Your task to perform on an android device: visit the assistant section in the google photos Image 0: 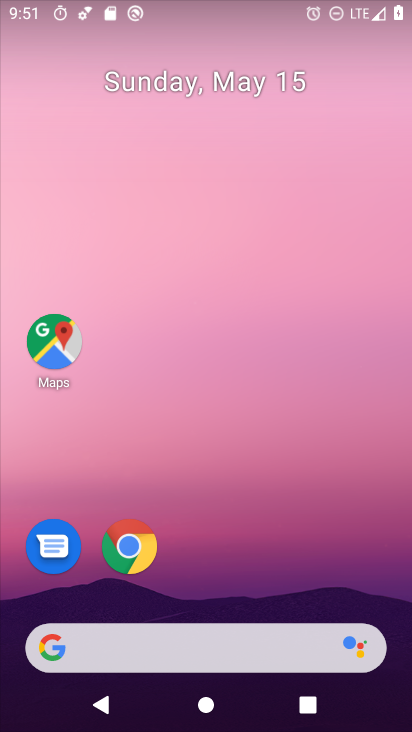
Step 0: drag from (274, 503) to (246, 52)
Your task to perform on an android device: visit the assistant section in the google photos Image 1: 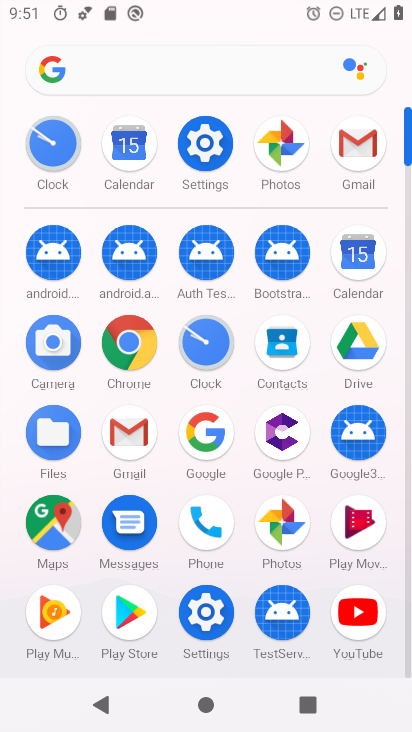
Step 1: click (284, 144)
Your task to perform on an android device: visit the assistant section in the google photos Image 2: 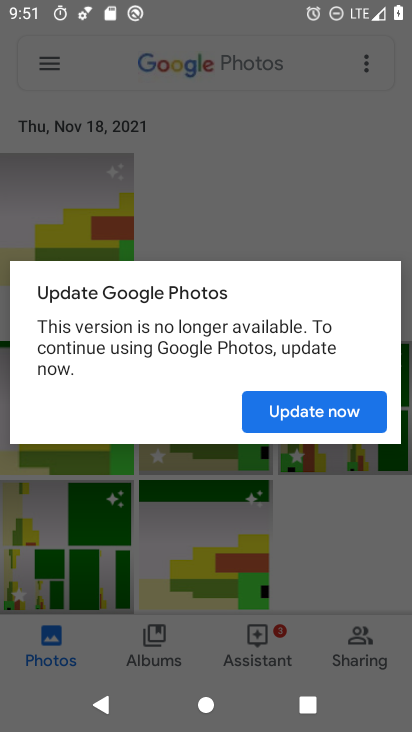
Step 2: click (258, 638)
Your task to perform on an android device: visit the assistant section in the google photos Image 3: 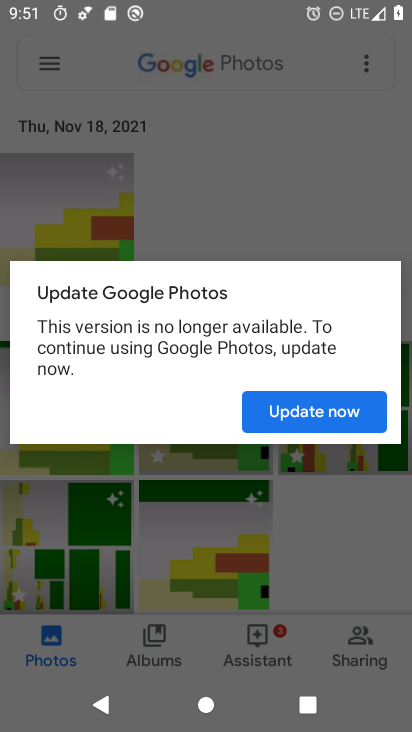
Step 3: click (322, 412)
Your task to perform on an android device: visit the assistant section in the google photos Image 4: 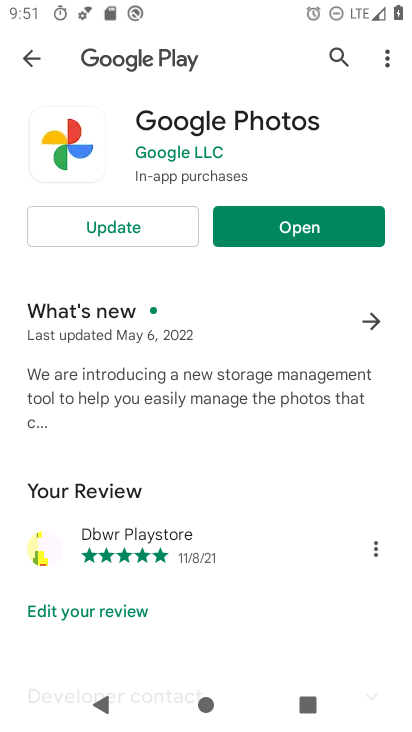
Step 4: click (313, 224)
Your task to perform on an android device: visit the assistant section in the google photos Image 5: 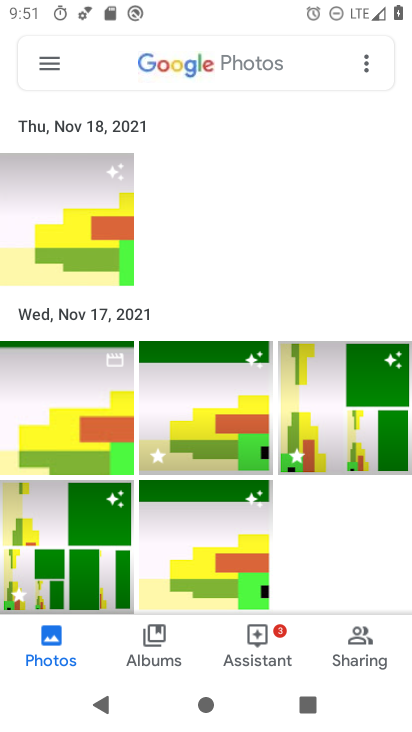
Step 5: click (269, 644)
Your task to perform on an android device: visit the assistant section in the google photos Image 6: 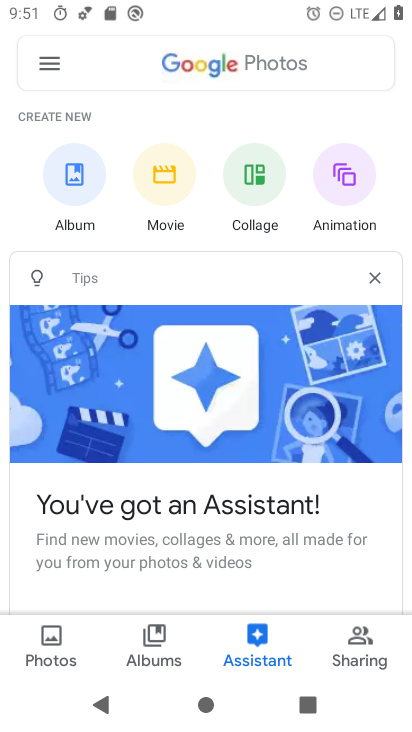
Step 6: task complete